Your task to perform on an android device: Is it going to rain today? Image 0: 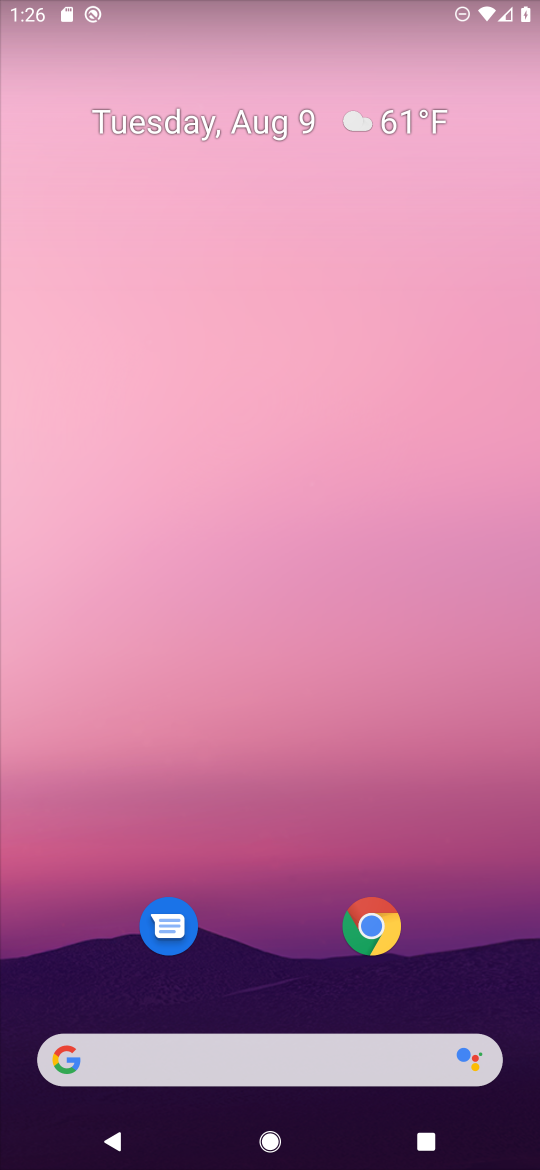
Step 0: click (279, 1044)
Your task to perform on an android device: Is it going to rain today? Image 1: 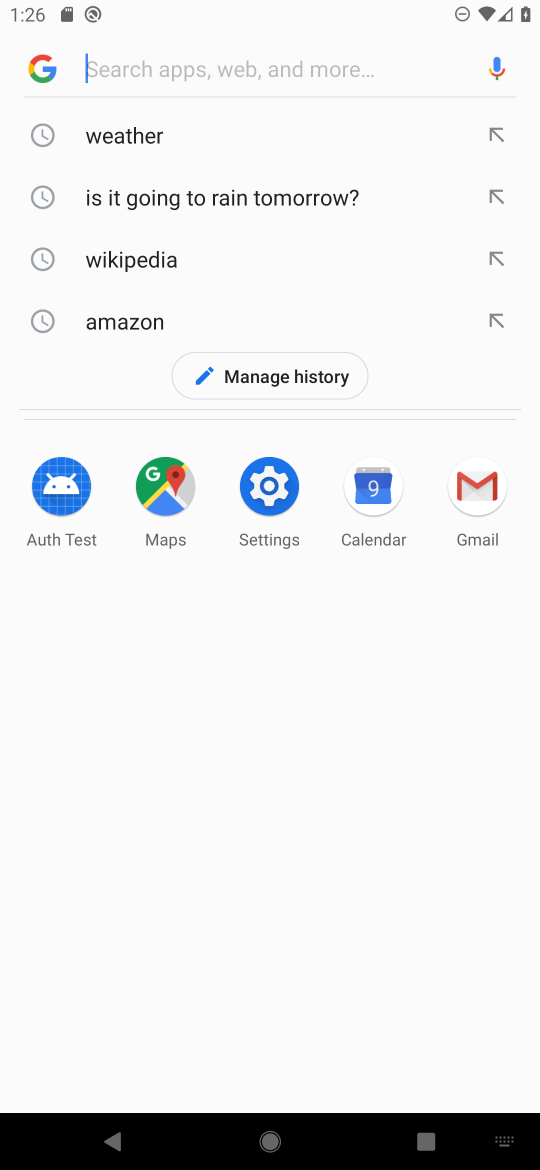
Step 1: click (134, 130)
Your task to perform on an android device: Is it going to rain today? Image 2: 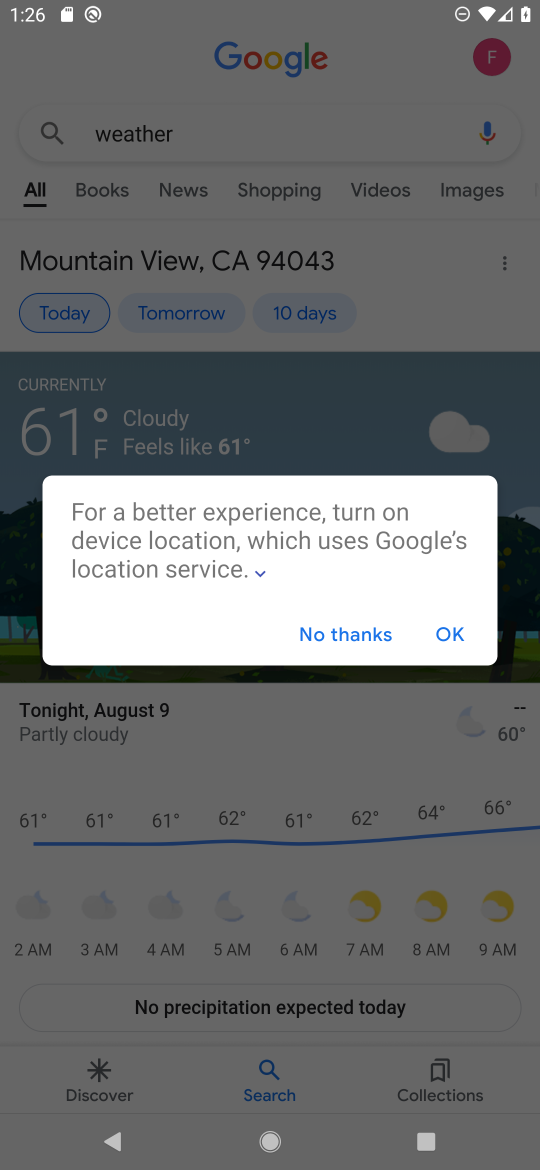
Step 2: task complete